Your task to perform on an android device: find which apps use the phone's location Image 0: 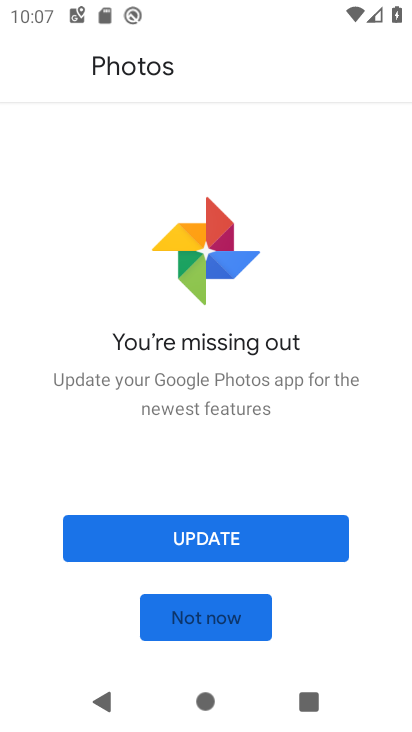
Step 0: press home button
Your task to perform on an android device: find which apps use the phone's location Image 1: 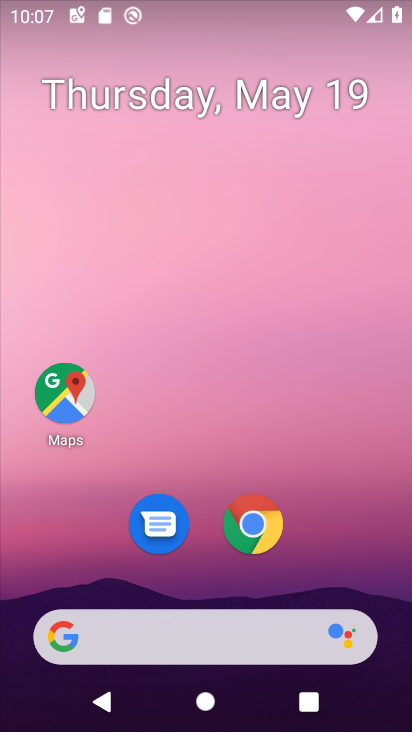
Step 1: drag from (224, 464) to (304, 10)
Your task to perform on an android device: find which apps use the phone's location Image 2: 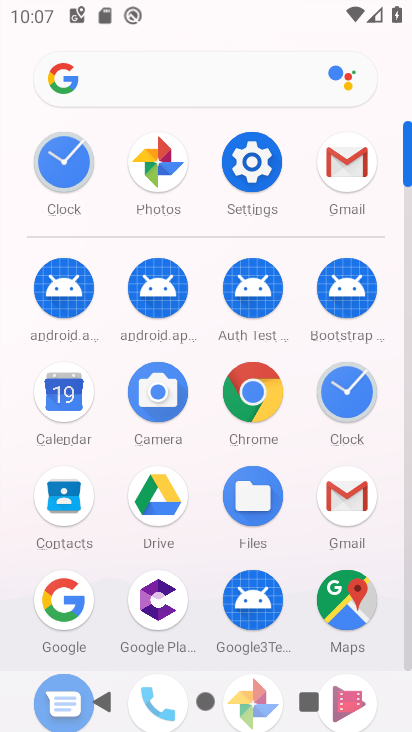
Step 2: click (240, 166)
Your task to perform on an android device: find which apps use the phone's location Image 3: 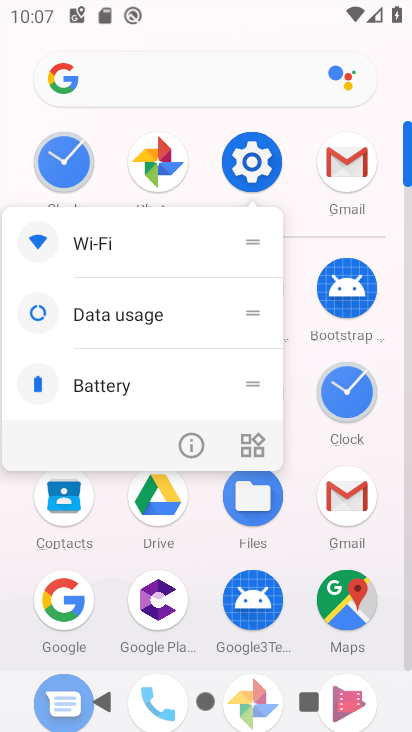
Step 3: click (247, 156)
Your task to perform on an android device: find which apps use the phone's location Image 4: 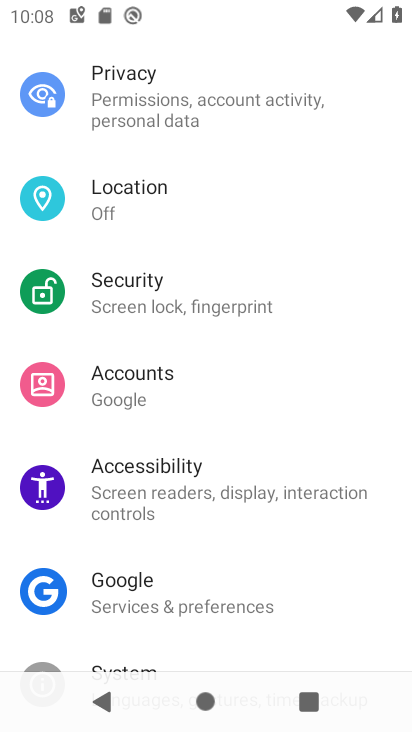
Step 4: click (227, 213)
Your task to perform on an android device: find which apps use the phone's location Image 5: 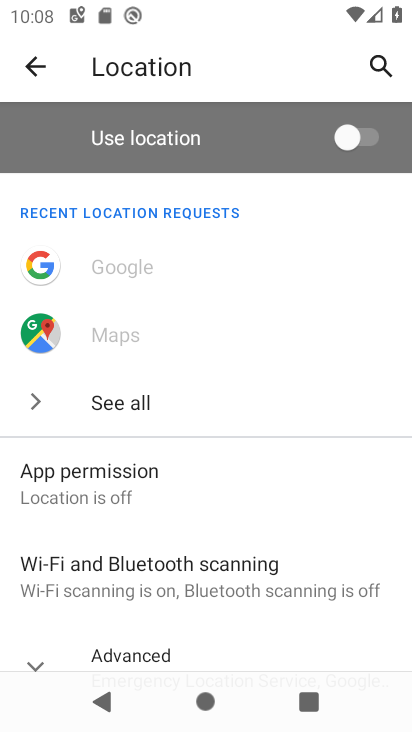
Step 5: click (147, 490)
Your task to perform on an android device: find which apps use the phone's location Image 6: 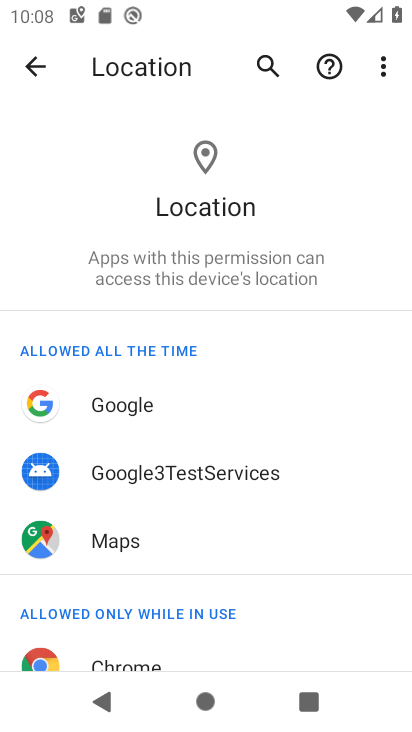
Step 6: task complete